Your task to perform on an android device: Go to sound settings Image 0: 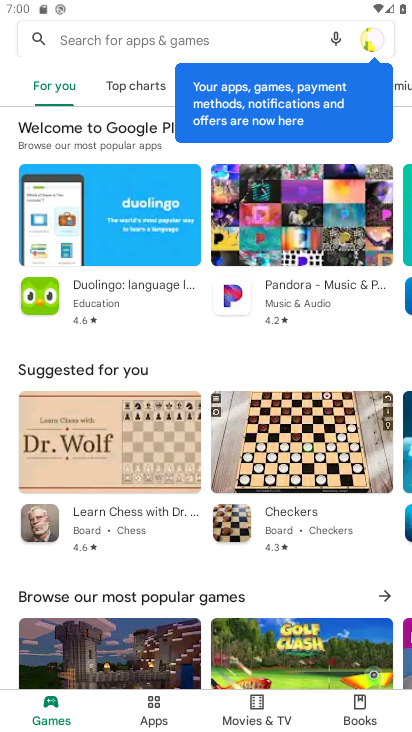
Step 0: press home button
Your task to perform on an android device: Go to sound settings Image 1: 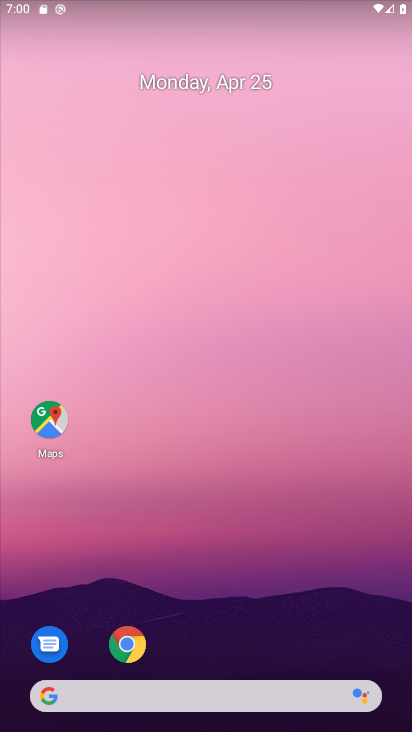
Step 1: drag from (283, 453) to (309, 168)
Your task to perform on an android device: Go to sound settings Image 2: 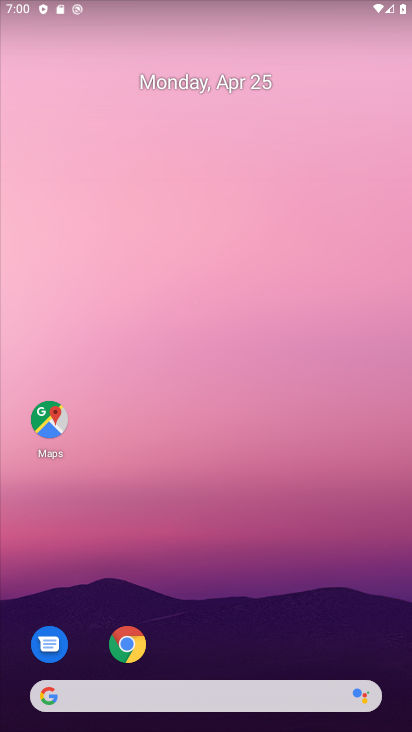
Step 2: drag from (266, 614) to (285, 77)
Your task to perform on an android device: Go to sound settings Image 3: 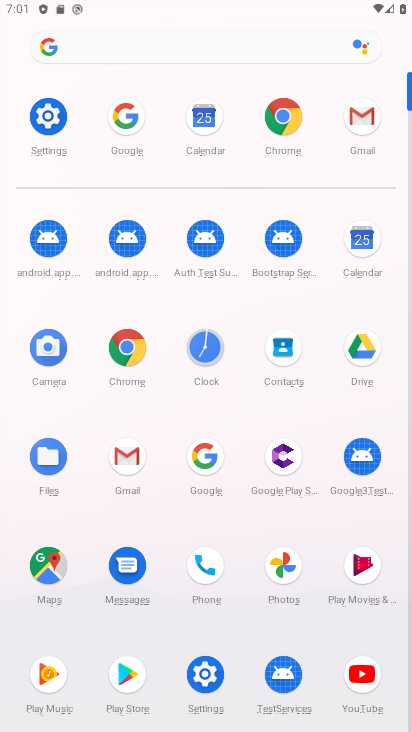
Step 3: click (207, 674)
Your task to perform on an android device: Go to sound settings Image 4: 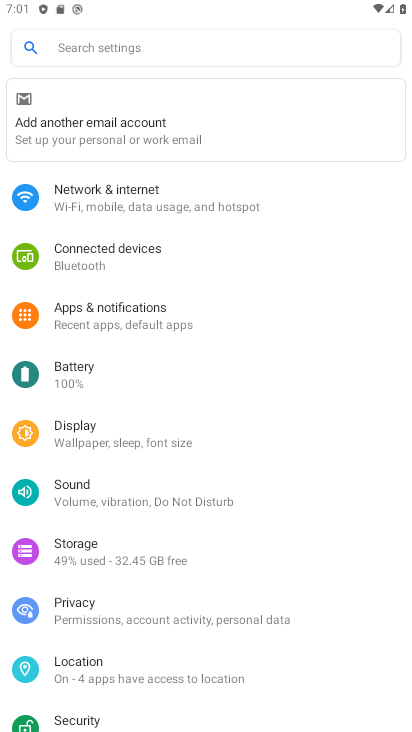
Step 4: drag from (308, 656) to (321, 313)
Your task to perform on an android device: Go to sound settings Image 5: 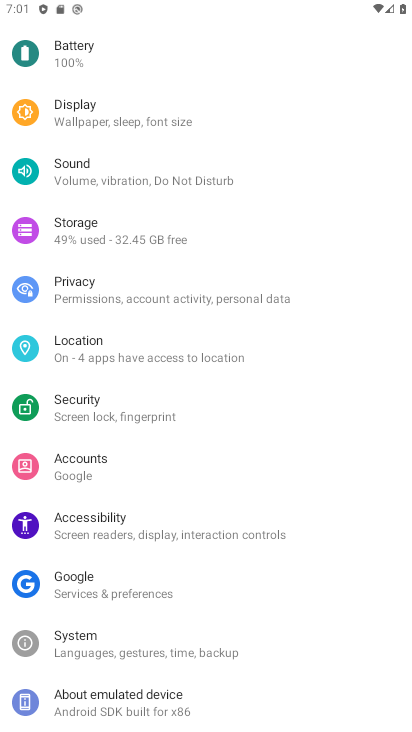
Step 5: click (104, 172)
Your task to perform on an android device: Go to sound settings Image 6: 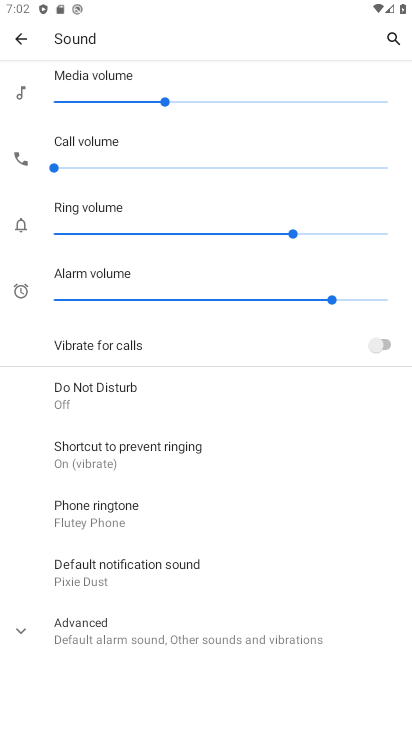
Step 6: task complete